Your task to perform on an android device: Go to Yahoo.com Image 0: 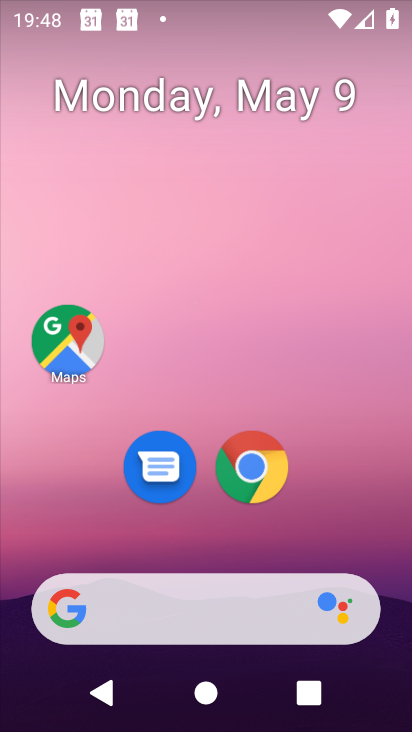
Step 0: click (261, 465)
Your task to perform on an android device: Go to Yahoo.com Image 1: 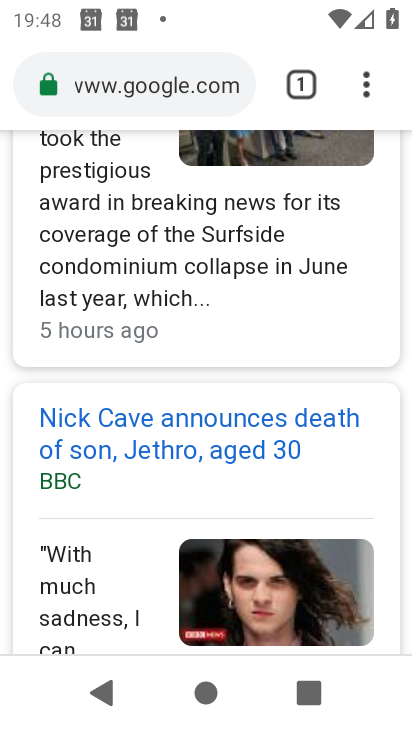
Step 1: click (222, 80)
Your task to perform on an android device: Go to Yahoo.com Image 2: 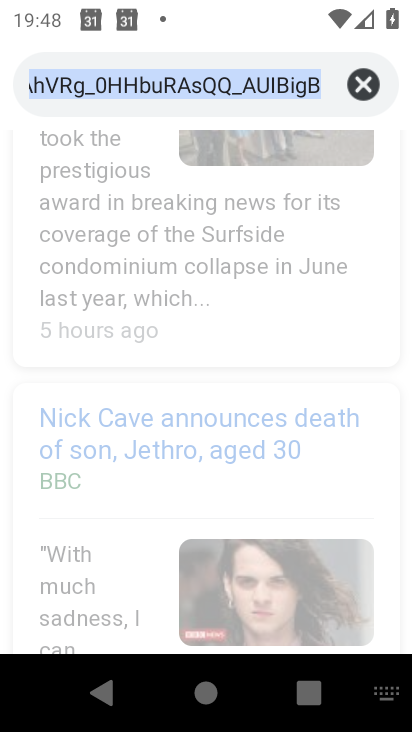
Step 2: type "yahoo.com"
Your task to perform on an android device: Go to Yahoo.com Image 3: 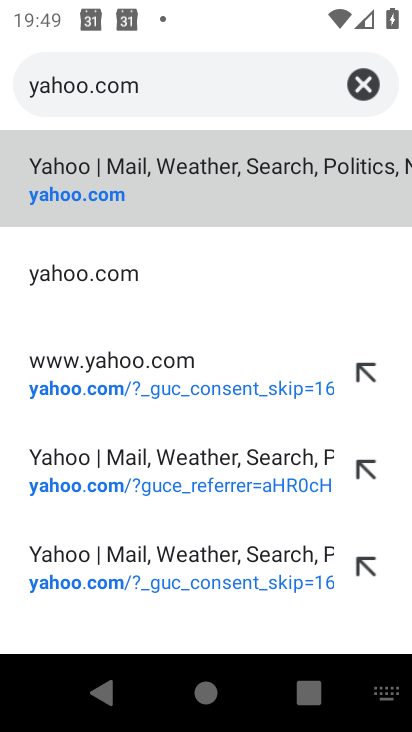
Step 3: click (80, 189)
Your task to perform on an android device: Go to Yahoo.com Image 4: 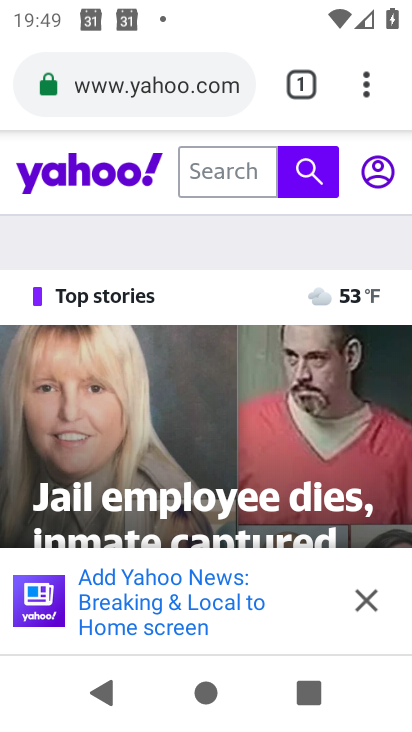
Step 4: task complete